Your task to perform on an android device: change your default location settings in chrome Image 0: 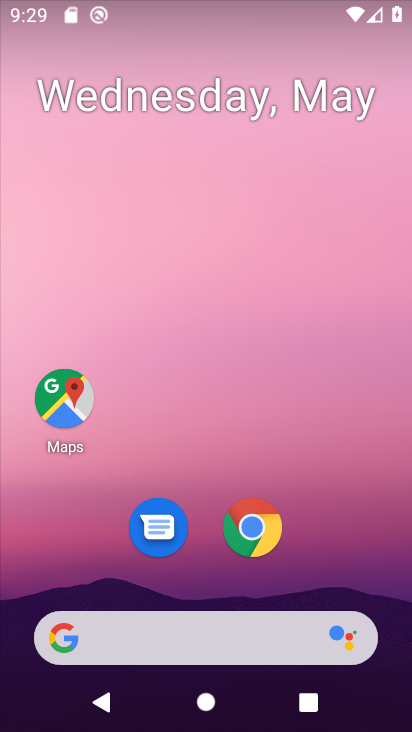
Step 0: click (249, 528)
Your task to perform on an android device: change your default location settings in chrome Image 1: 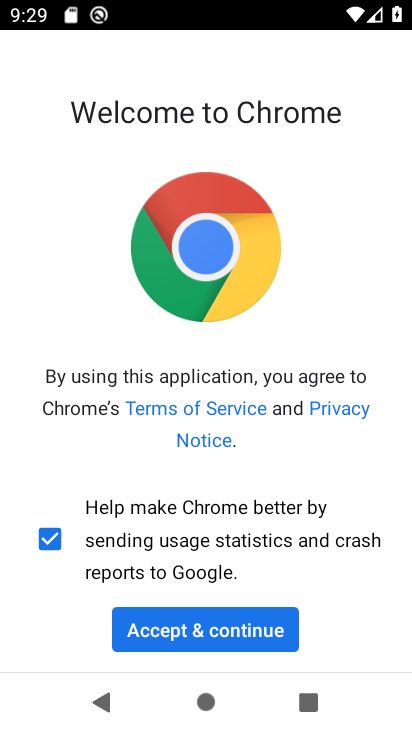
Step 1: click (205, 641)
Your task to perform on an android device: change your default location settings in chrome Image 2: 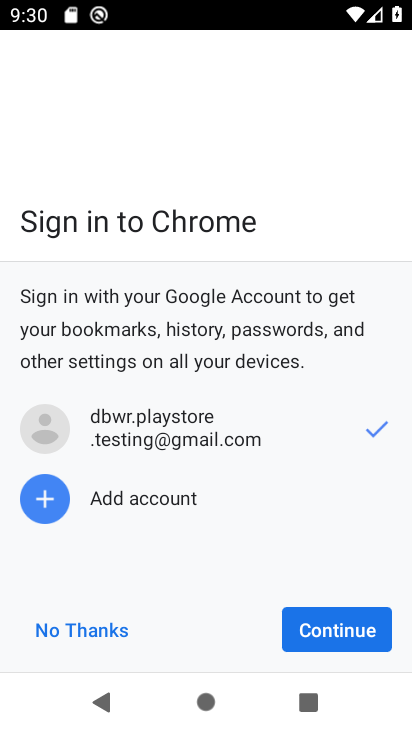
Step 2: click (328, 630)
Your task to perform on an android device: change your default location settings in chrome Image 3: 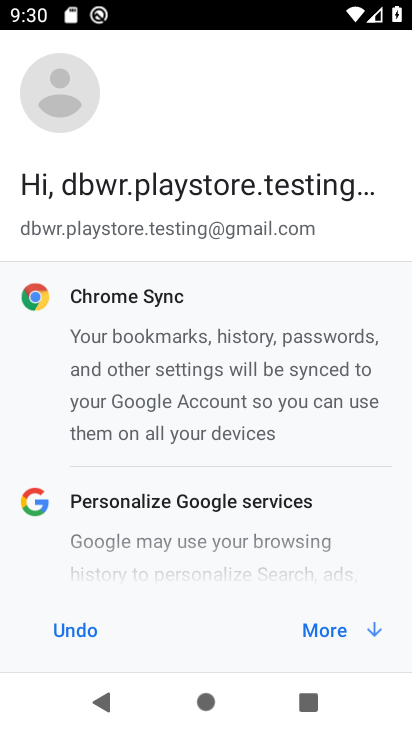
Step 3: click (328, 630)
Your task to perform on an android device: change your default location settings in chrome Image 4: 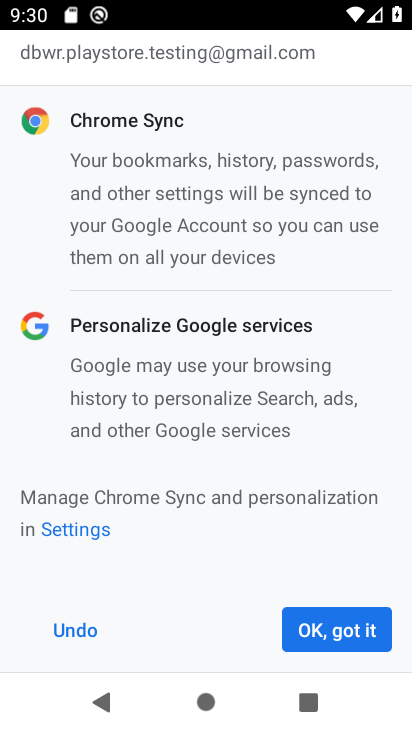
Step 4: click (328, 630)
Your task to perform on an android device: change your default location settings in chrome Image 5: 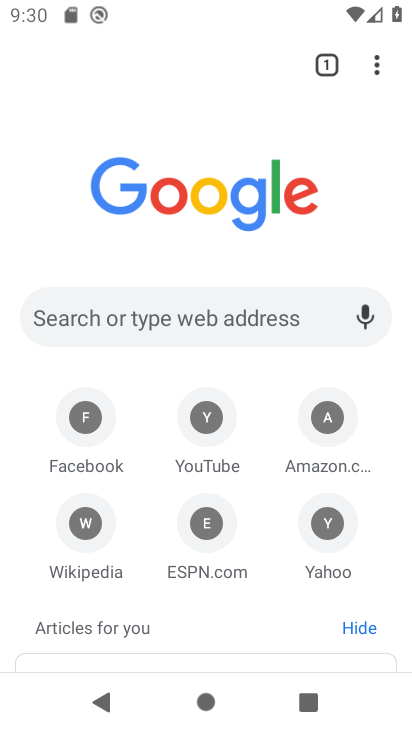
Step 5: click (372, 70)
Your task to perform on an android device: change your default location settings in chrome Image 6: 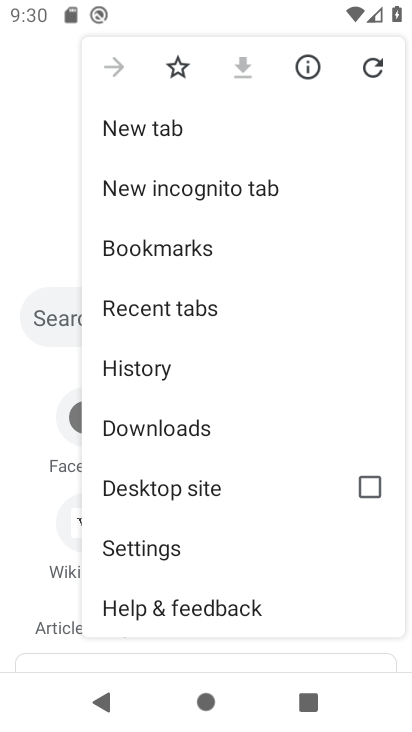
Step 6: drag from (263, 560) to (240, 285)
Your task to perform on an android device: change your default location settings in chrome Image 7: 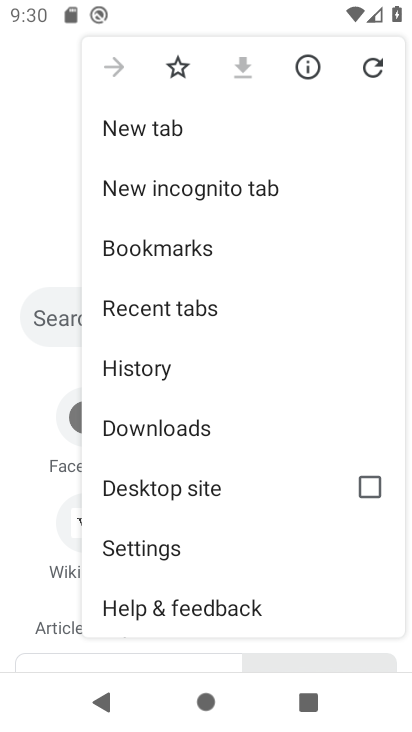
Step 7: click (164, 546)
Your task to perform on an android device: change your default location settings in chrome Image 8: 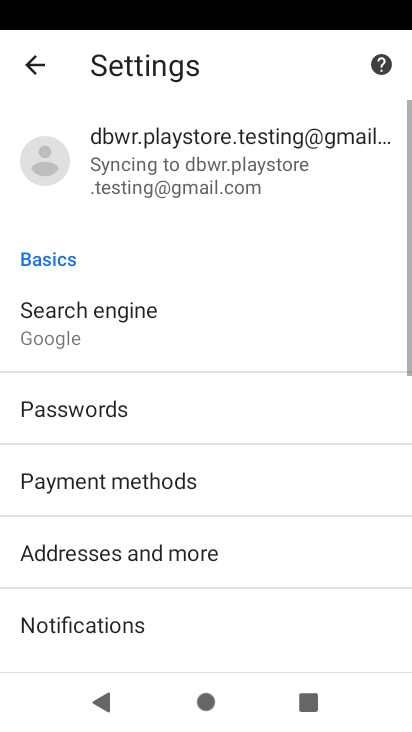
Step 8: drag from (235, 588) to (273, 98)
Your task to perform on an android device: change your default location settings in chrome Image 9: 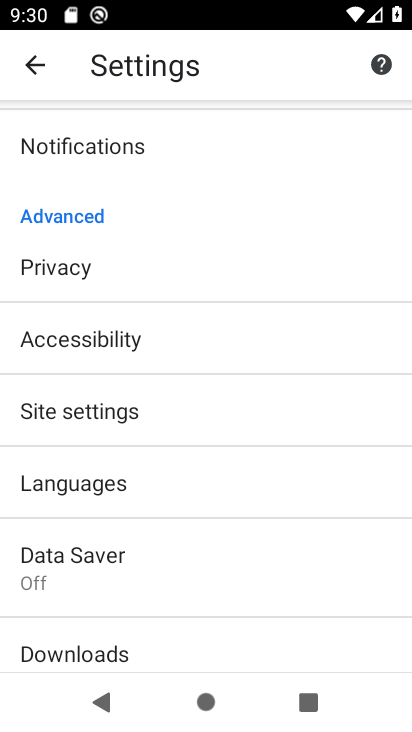
Step 9: click (133, 408)
Your task to perform on an android device: change your default location settings in chrome Image 10: 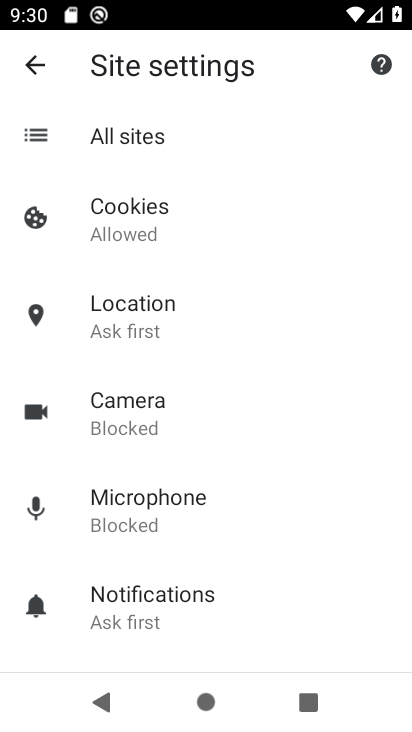
Step 10: click (143, 312)
Your task to perform on an android device: change your default location settings in chrome Image 11: 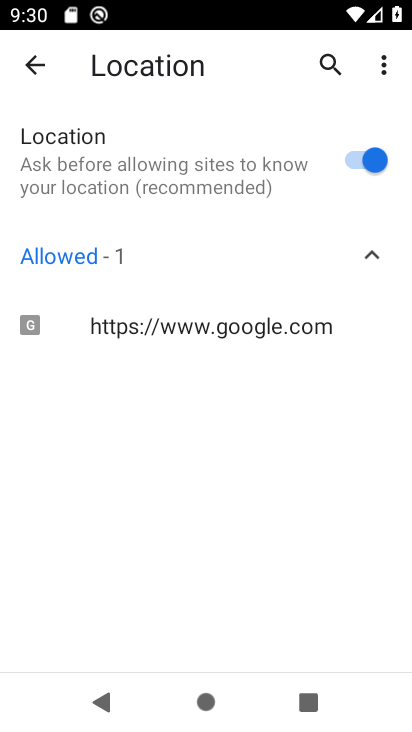
Step 11: click (379, 151)
Your task to perform on an android device: change your default location settings in chrome Image 12: 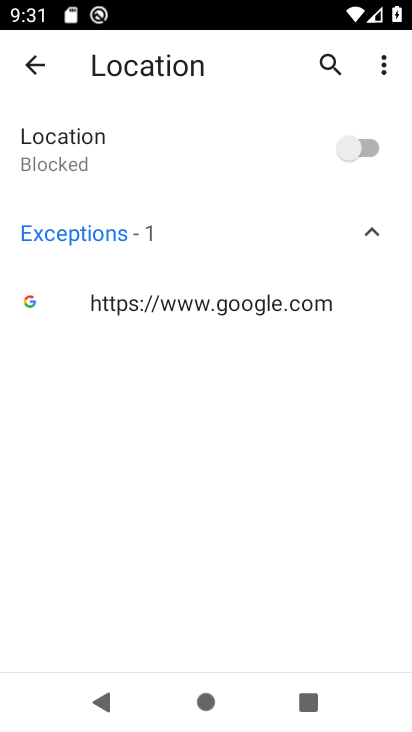
Step 12: task complete